Your task to perform on an android device: Open the stopwatch Image 0: 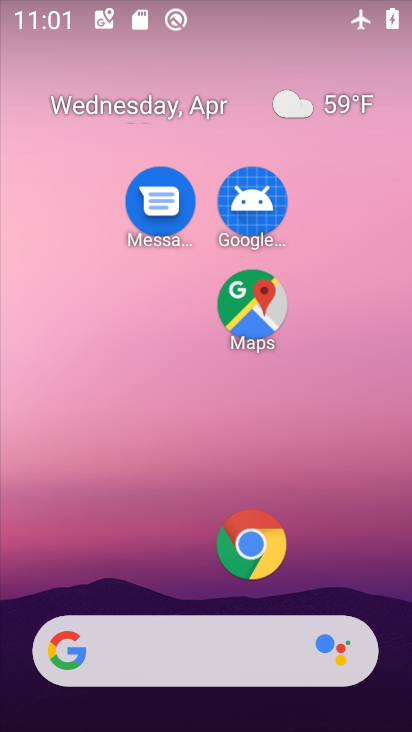
Step 0: drag from (190, 584) to (214, 268)
Your task to perform on an android device: Open the stopwatch Image 1: 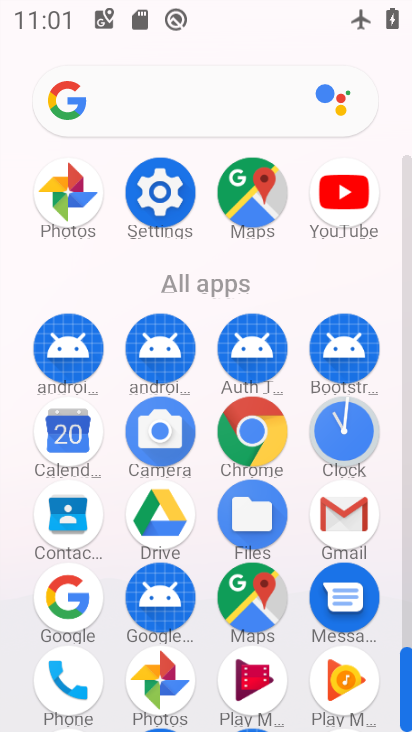
Step 1: click (337, 425)
Your task to perform on an android device: Open the stopwatch Image 2: 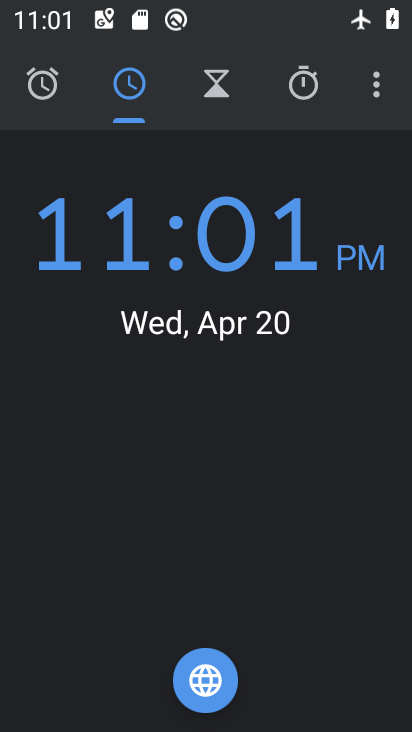
Step 2: click (309, 88)
Your task to perform on an android device: Open the stopwatch Image 3: 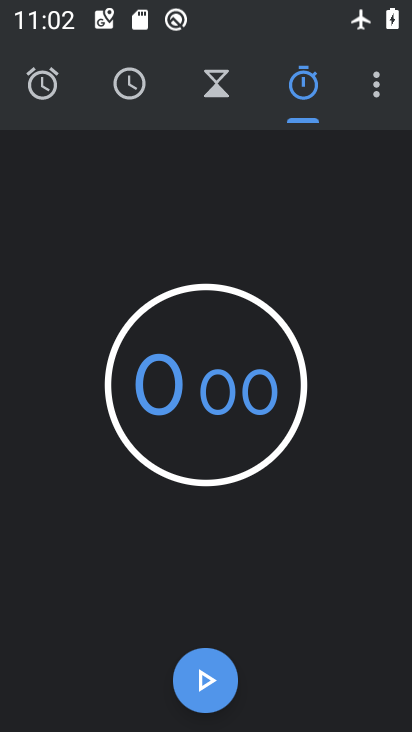
Step 3: task complete